Your task to perform on an android device: turn on the 12-hour format for clock Image 0: 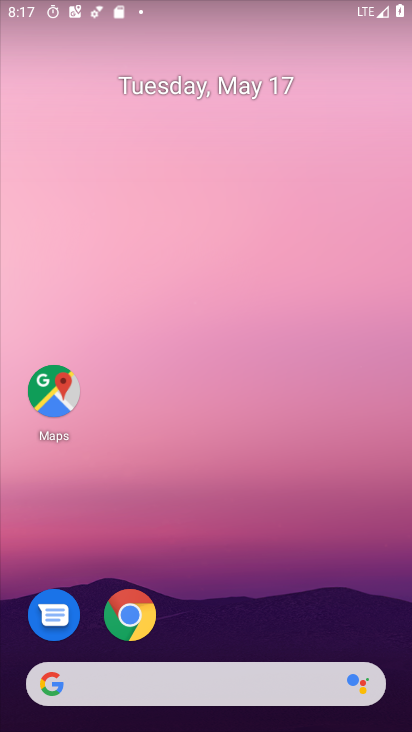
Step 0: click (137, 610)
Your task to perform on an android device: turn on the 12-hour format for clock Image 1: 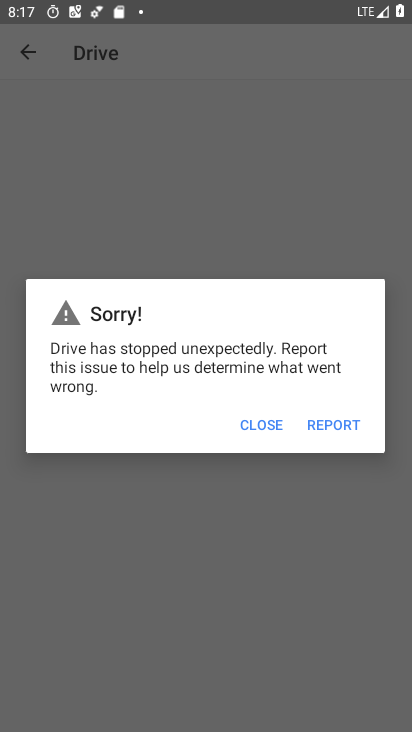
Step 1: press home button
Your task to perform on an android device: turn on the 12-hour format for clock Image 2: 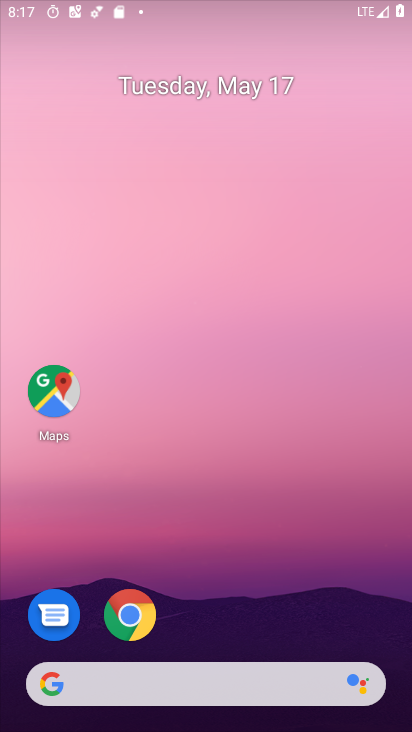
Step 2: drag from (353, 527) to (355, 198)
Your task to perform on an android device: turn on the 12-hour format for clock Image 3: 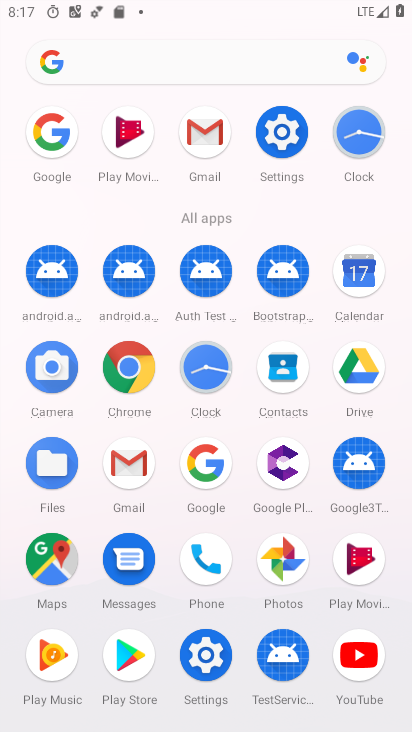
Step 3: click (213, 376)
Your task to perform on an android device: turn on the 12-hour format for clock Image 4: 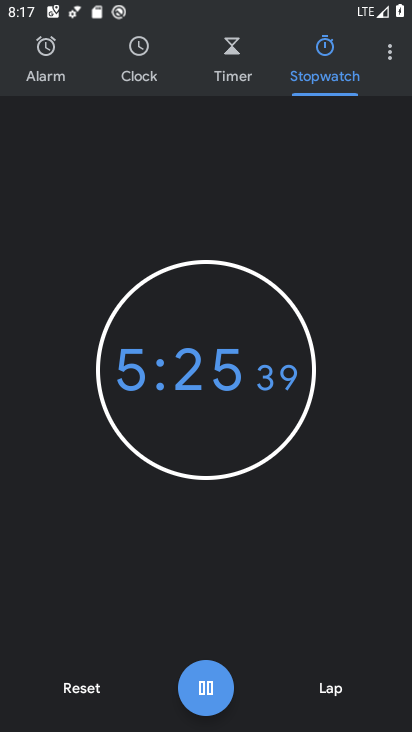
Step 4: click (393, 54)
Your task to perform on an android device: turn on the 12-hour format for clock Image 5: 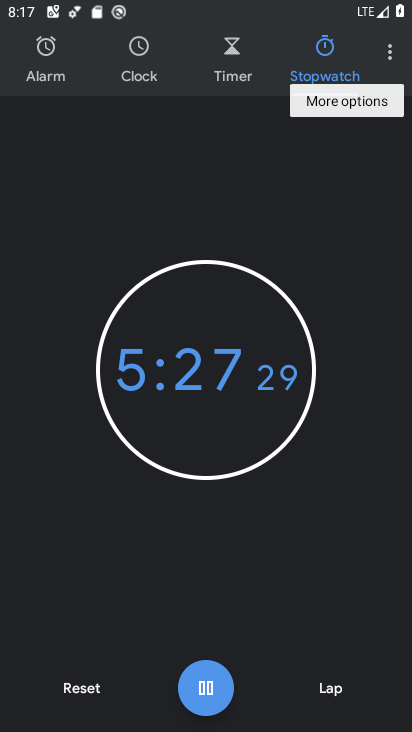
Step 5: click (384, 64)
Your task to perform on an android device: turn on the 12-hour format for clock Image 6: 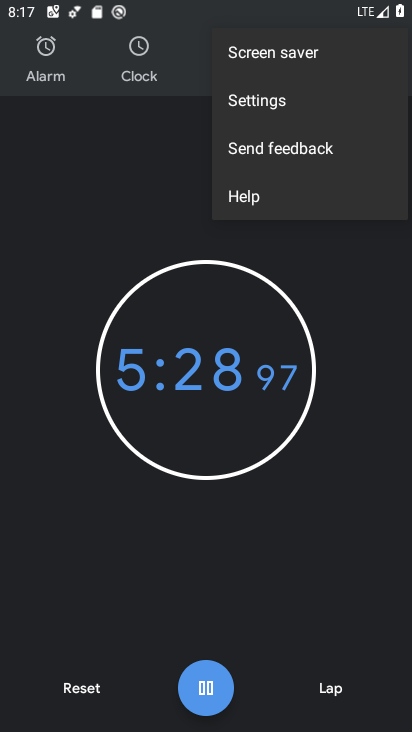
Step 6: click (306, 104)
Your task to perform on an android device: turn on the 12-hour format for clock Image 7: 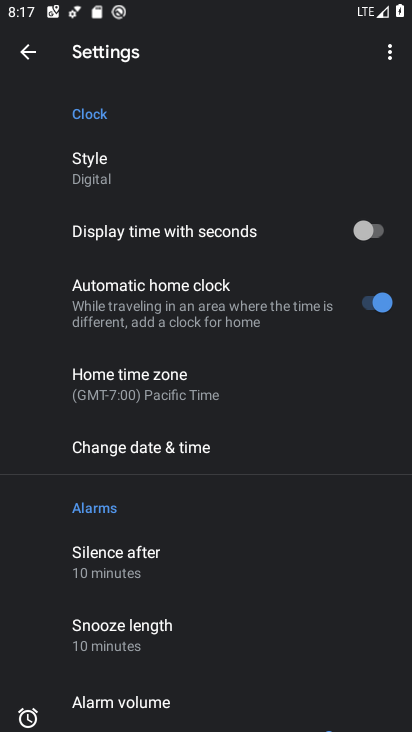
Step 7: drag from (201, 696) to (199, 590)
Your task to perform on an android device: turn on the 12-hour format for clock Image 8: 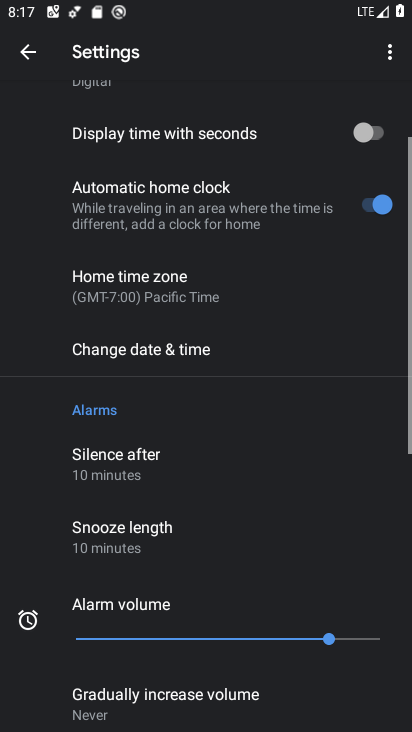
Step 8: click (161, 352)
Your task to perform on an android device: turn on the 12-hour format for clock Image 9: 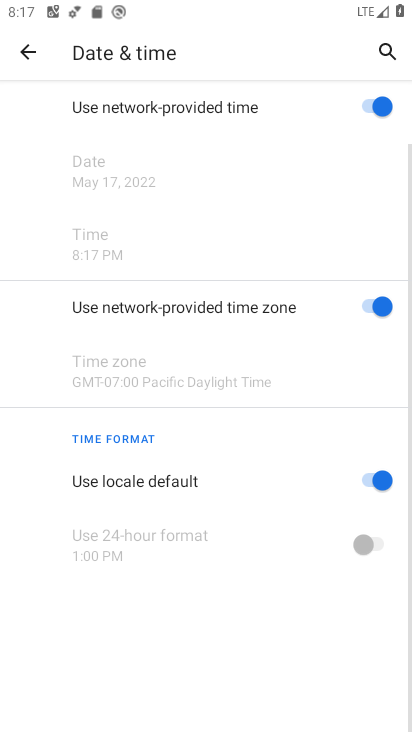
Step 9: task complete